Your task to perform on an android device: snooze an email in the gmail app Image 0: 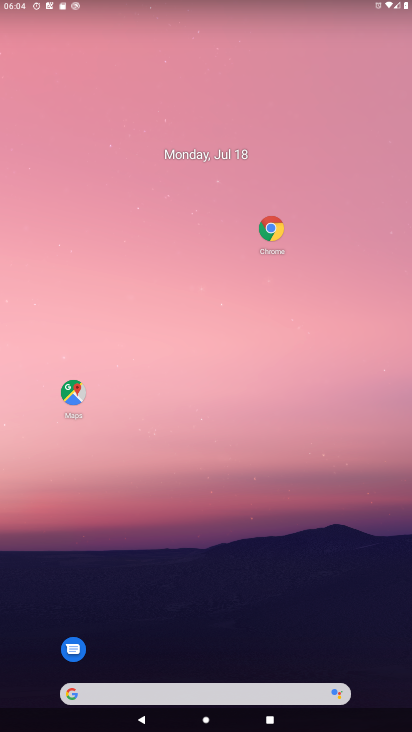
Step 0: drag from (170, 610) to (162, 330)
Your task to perform on an android device: snooze an email in the gmail app Image 1: 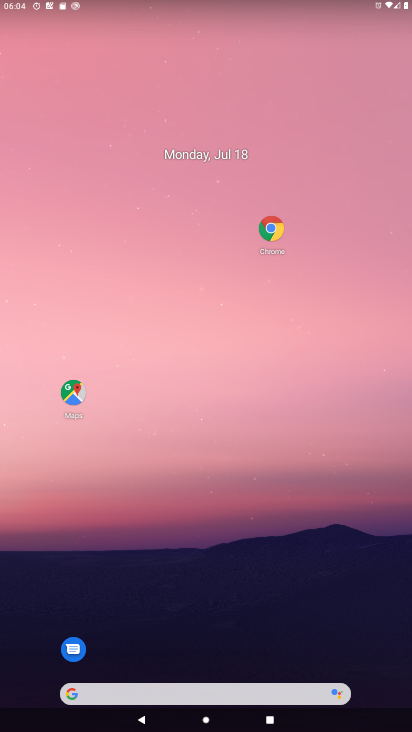
Step 1: drag from (180, 610) to (164, 129)
Your task to perform on an android device: snooze an email in the gmail app Image 2: 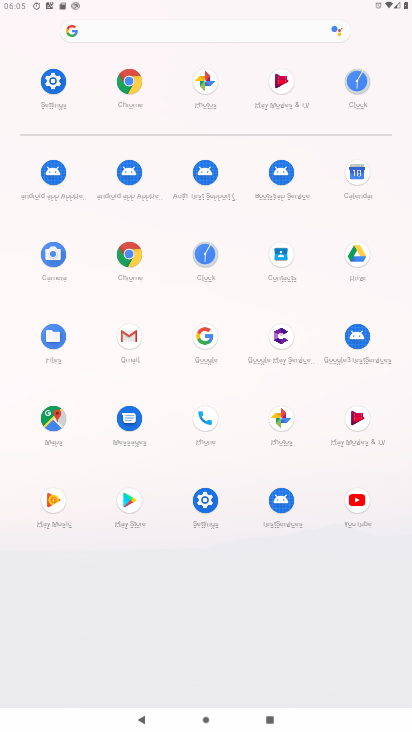
Step 2: click (137, 342)
Your task to perform on an android device: snooze an email in the gmail app Image 3: 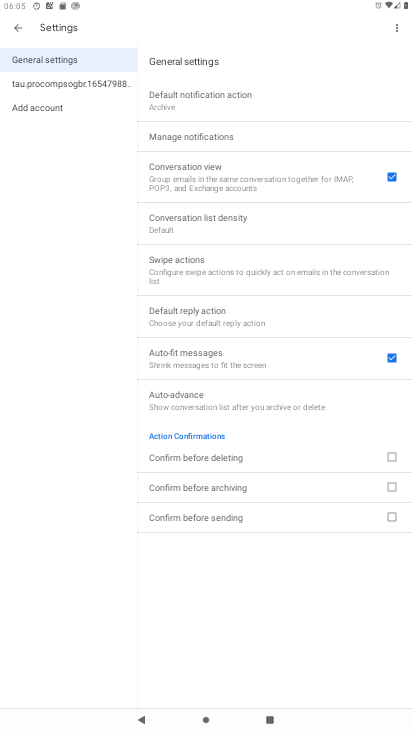
Step 3: click (16, 20)
Your task to perform on an android device: snooze an email in the gmail app Image 4: 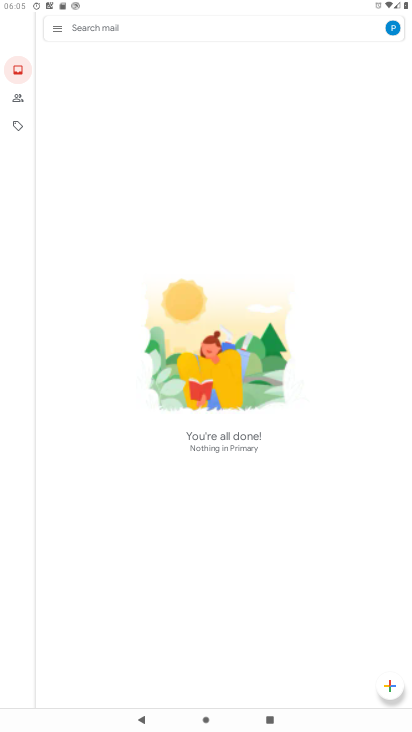
Step 4: click (62, 36)
Your task to perform on an android device: snooze an email in the gmail app Image 5: 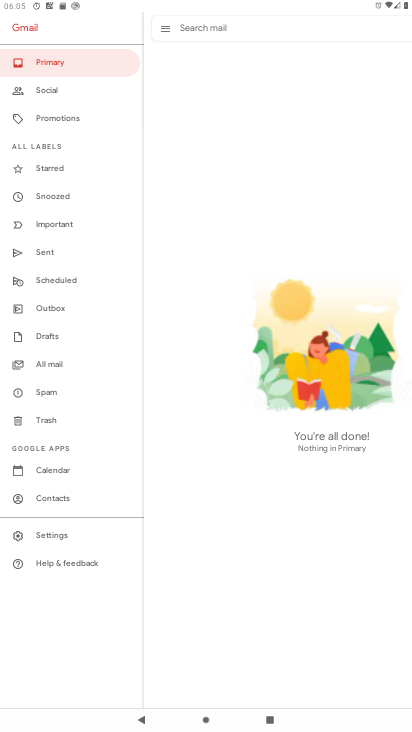
Step 5: click (70, 364)
Your task to perform on an android device: snooze an email in the gmail app Image 6: 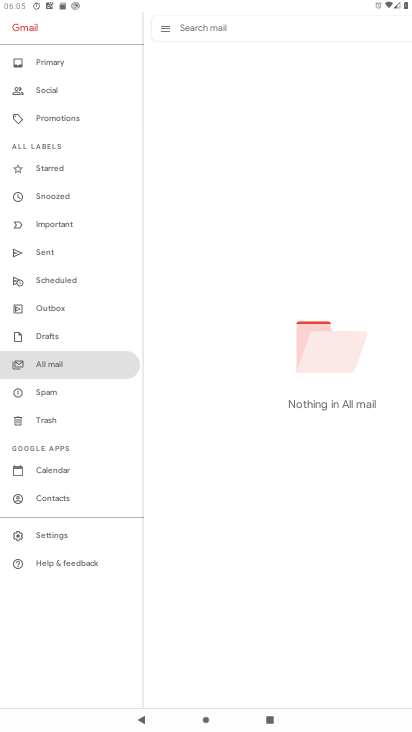
Step 6: task complete